Your task to perform on an android device: set the timer Image 0: 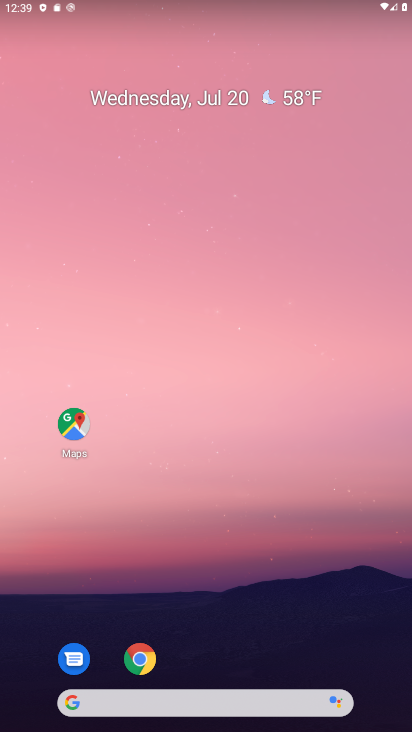
Step 0: press home button
Your task to perform on an android device: set the timer Image 1: 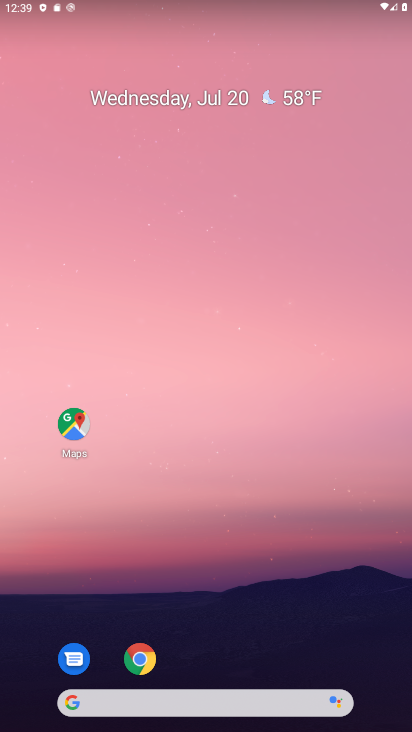
Step 1: drag from (226, 658) to (246, 61)
Your task to perform on an android device: set the timer Image 2: 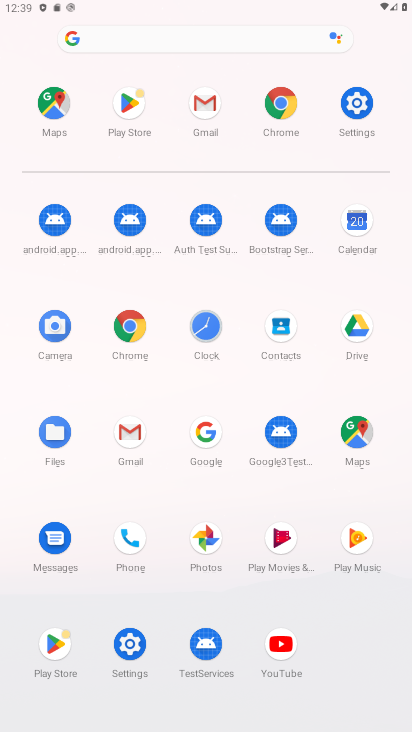
Step 2: click (204, 321)
Your task to perform on an android device: set the timer Image 3: 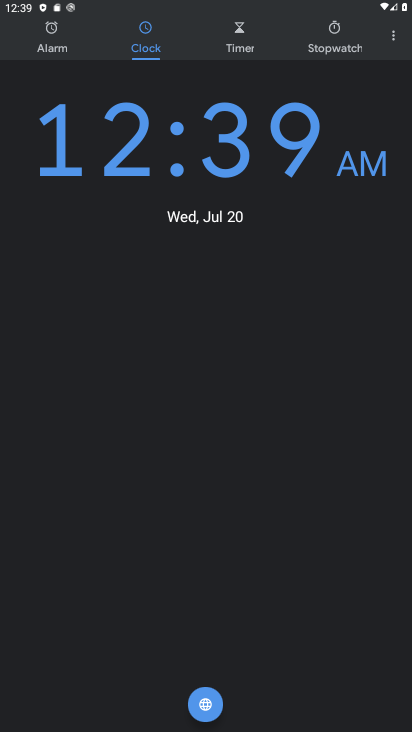
Step 3: click (236, 30)
Your task to perform on an android device: set the timer Image 4: 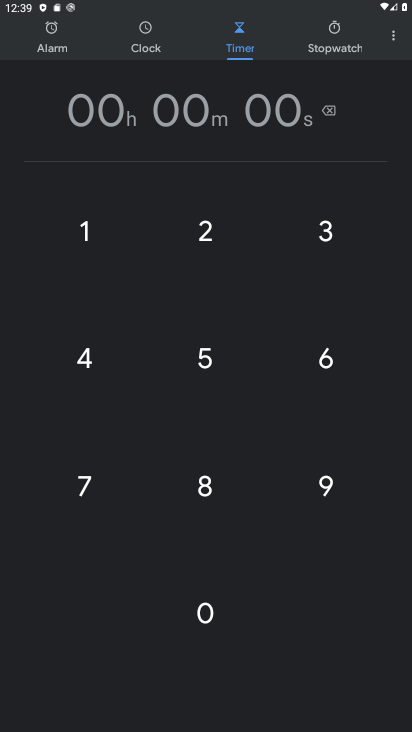
Step 4: click (205, 226)
Your task to perform on an android device: set the timer Image 5: 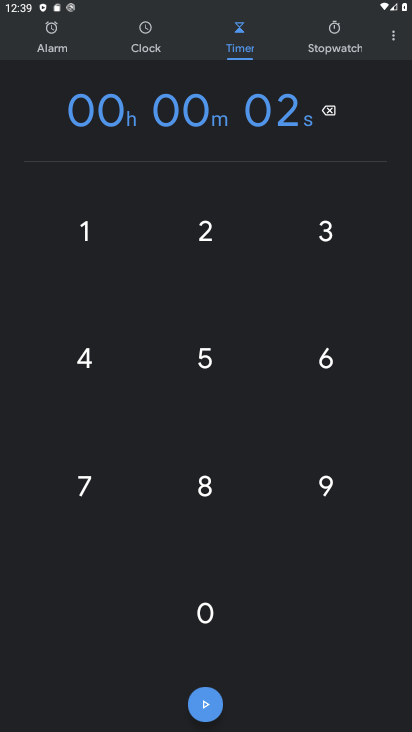
Step 5: click (202, 603)
Your task to perform on an android device: set the timer Image 6: 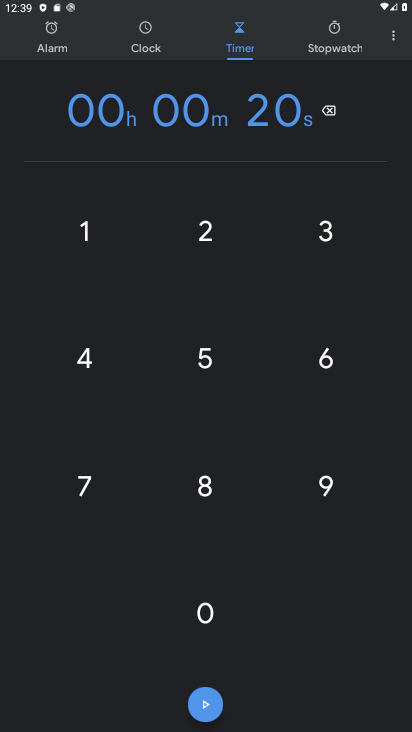
Step 6: click (202, 604)
Your task to perform on an android device: set the timer Image 7: 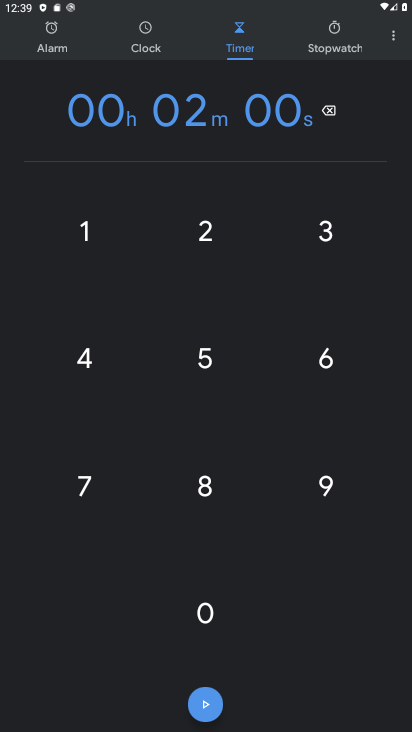
Step 7: click (214, 608)
Your task to perform on an android device: set the timer Image 8: 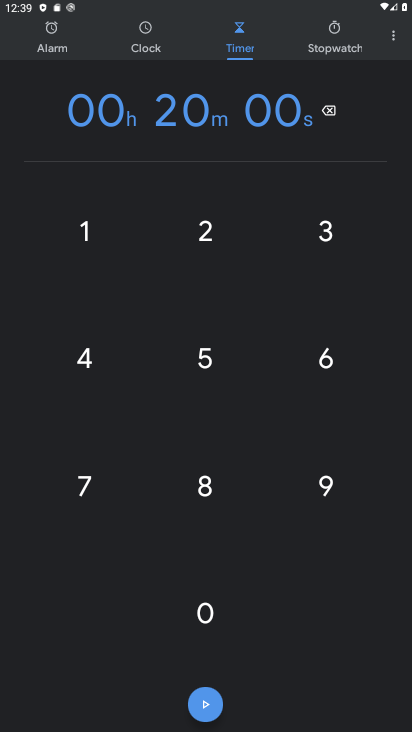
Step 8: click (206, 699)
Your task to perform on an android device: set the timer Image 9: 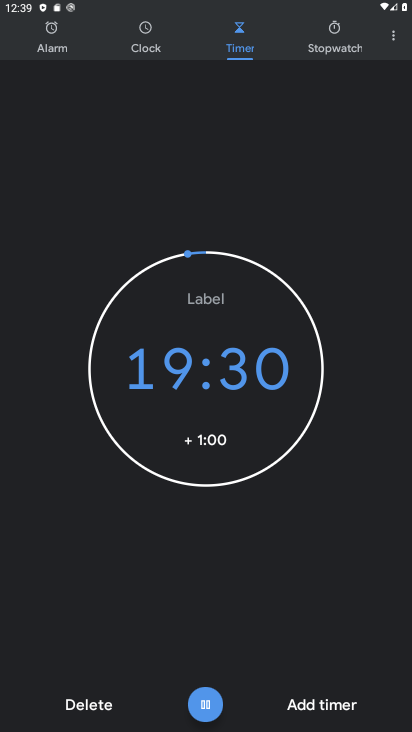
Step 9: task complete